Your task to perform on an android device: turn off airplane mode Image 0: 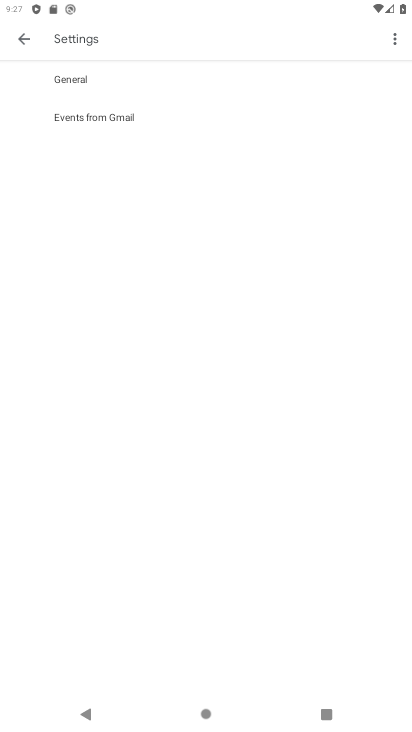
Step 0: drag from (36, 700) to (288, 50)
Your task to perform on an android device: turn off airplane mode Image 1: 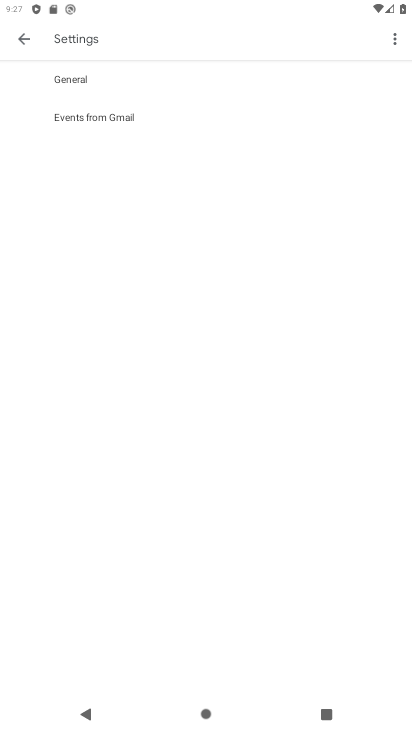
Step 1: press home button
Your task to perform on an android device: turn off airplane mode Image 2: 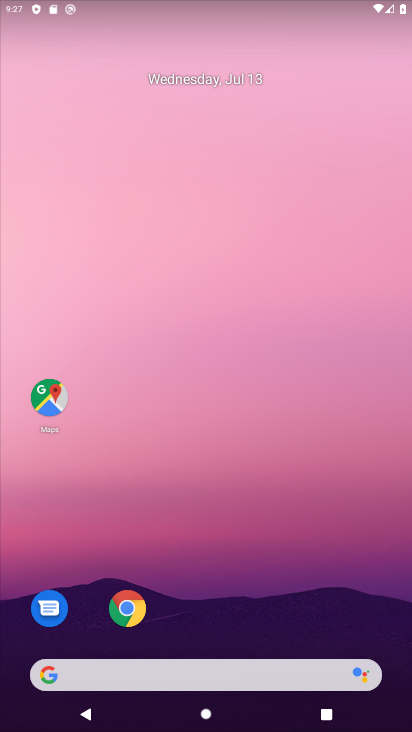
Step 2: drag from (21, 680) to (218, 179)
Your task to perform on an android device: turn off airplane mode Image 3: 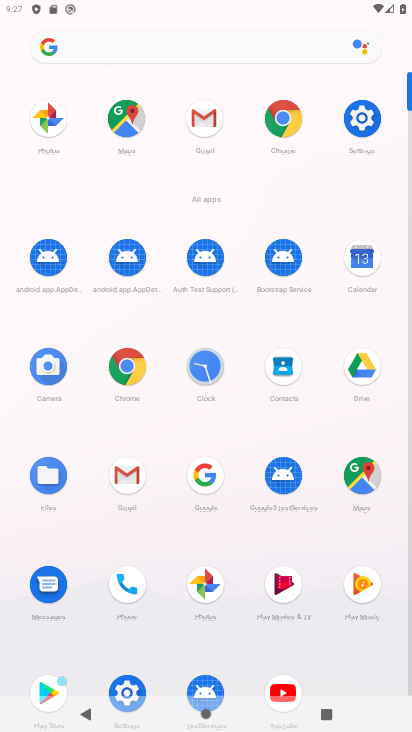
Step 3: click (130, 686)
Your task to perform on an android device: turn off airplane mode Image 4: 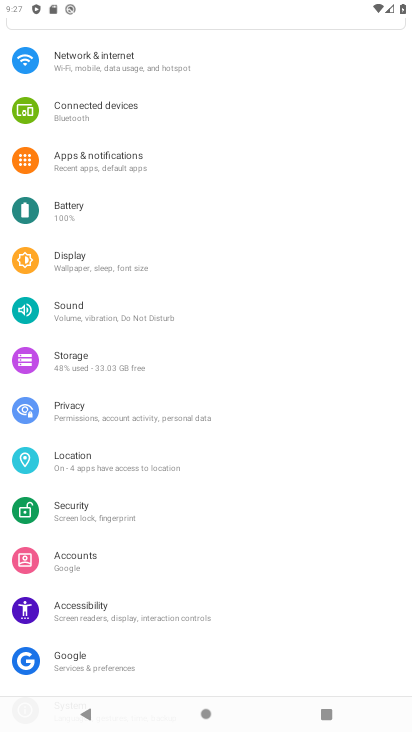
Step 4: click (105, 53)
Your task to perform on an android device: turn off airplane mode Image 5: 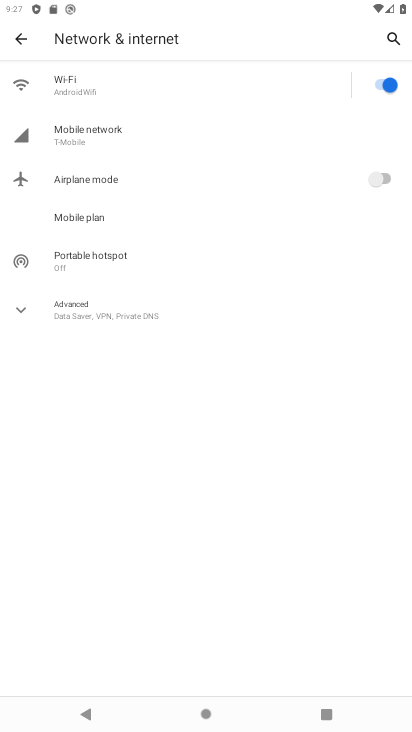
Step 5: click (383, 173)
Your task to perform on an android device: turn off airplane mode Image 6: 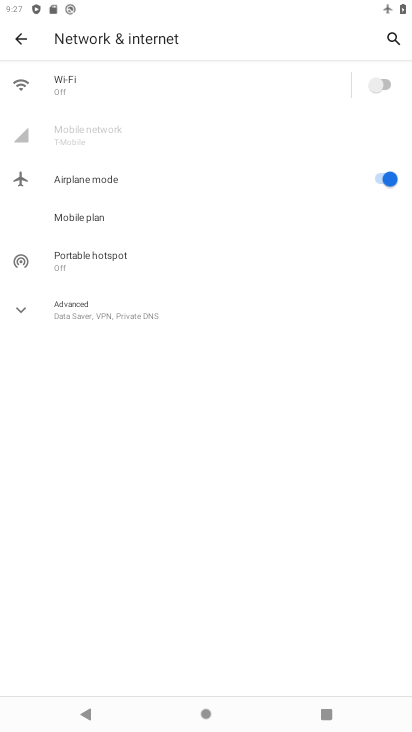
Step 6: task complete